Your task to perform on an android device: Show the shopping cart on target.com. Image 0: 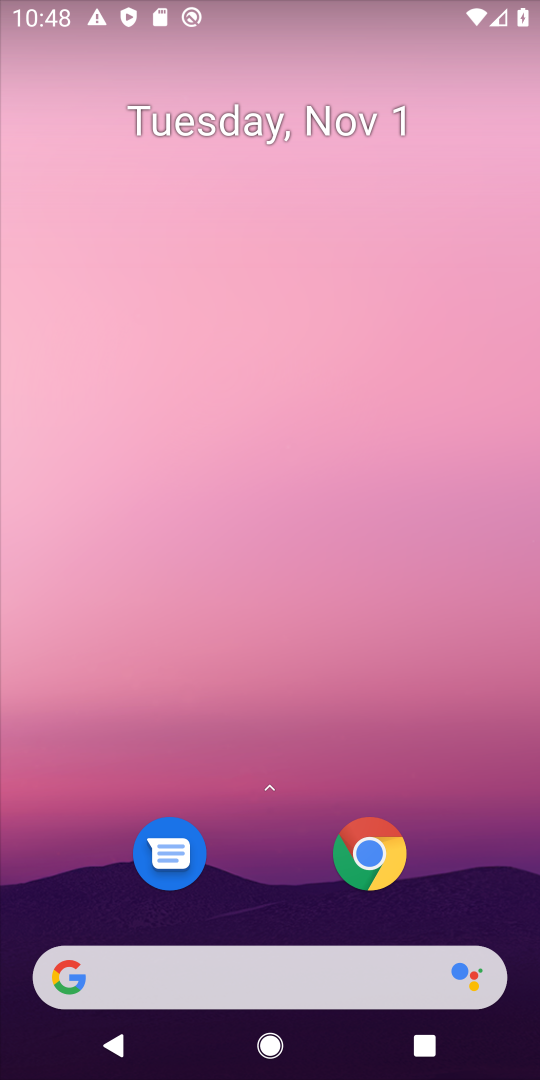
Step 0: click (295, 987)
Your task to perform on an android device: Show the shopping cart on target.com. Image 1: 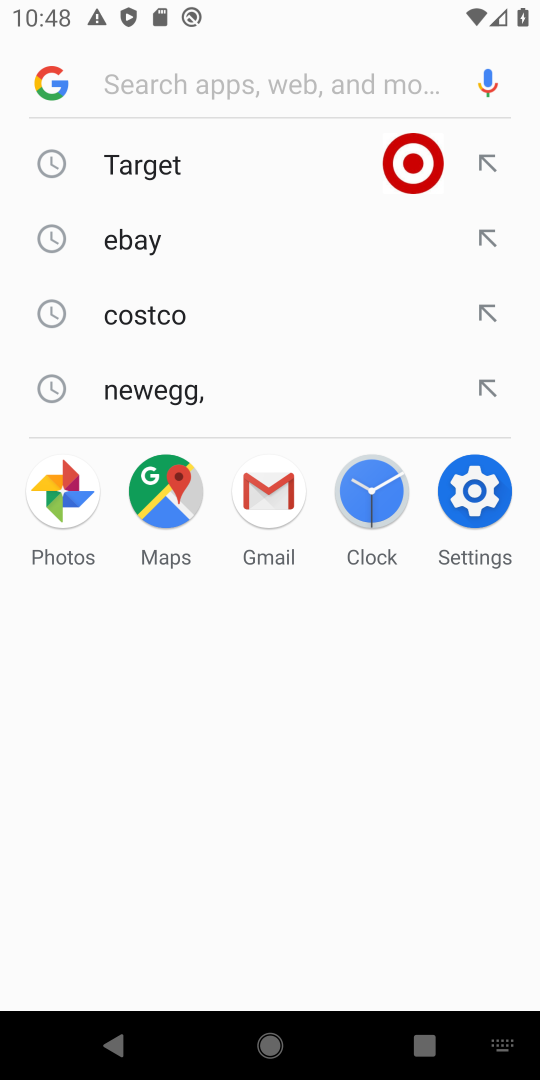
Step 1: type "target"
Your task to perform on an android device: Show the shopping cart on target.com. Image 2: 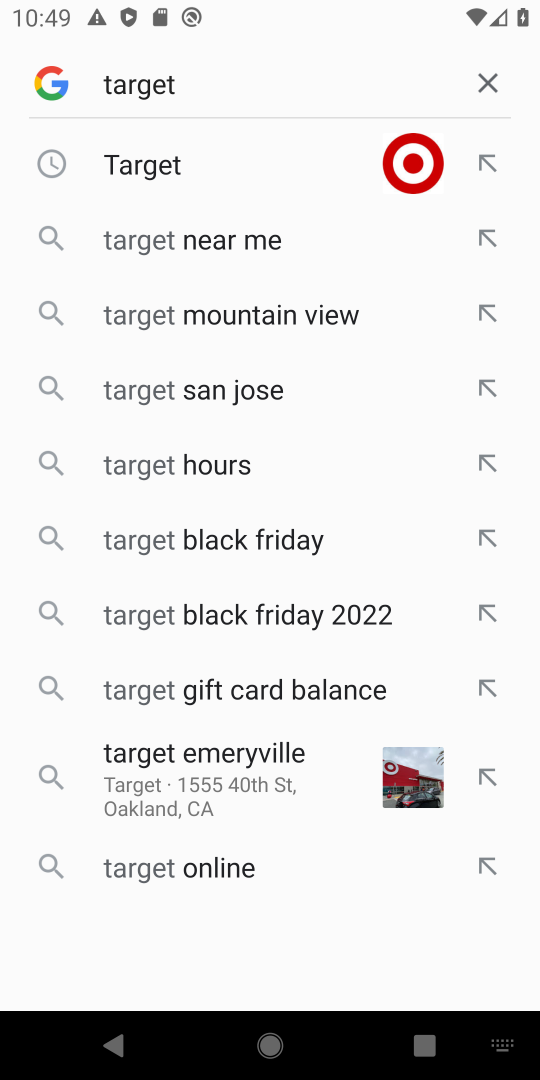
Step 2: click (211, 179)
Your task to perform on an android device: Show the shopping cart on target.com. Image 3: 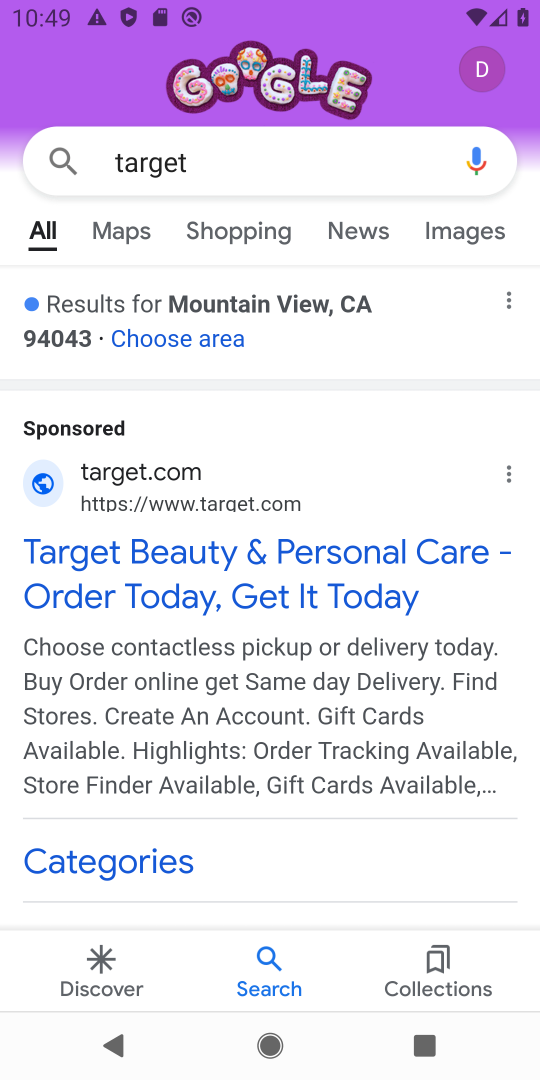
Step 3: click (185, 582)
Your task to perform on an android device: Show the shopping cart on target.com. Image 4: 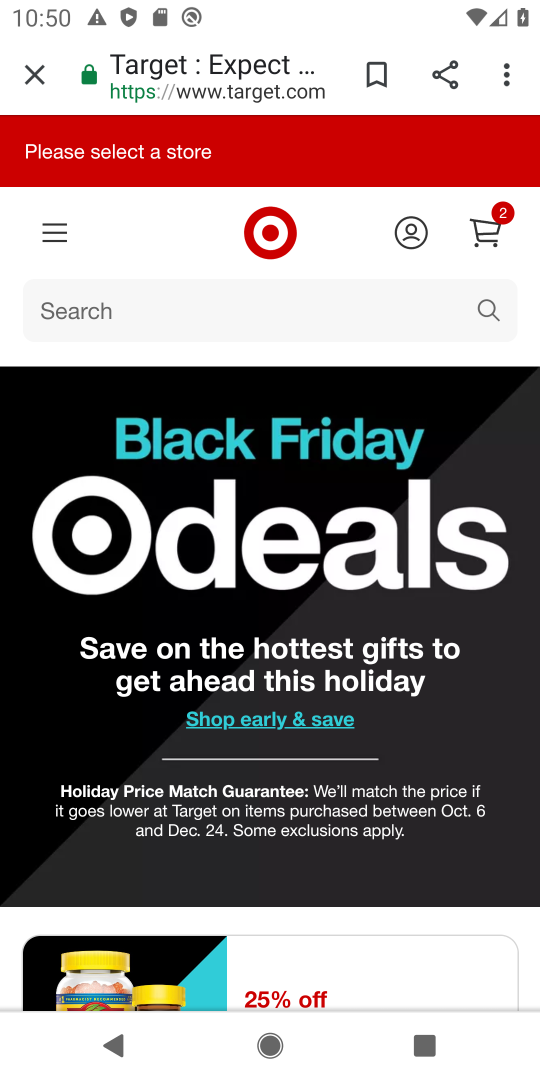
Step 4: click (265, 315)
Your task to perform on an android device: Show the shopping cart on target.com. Image 5: 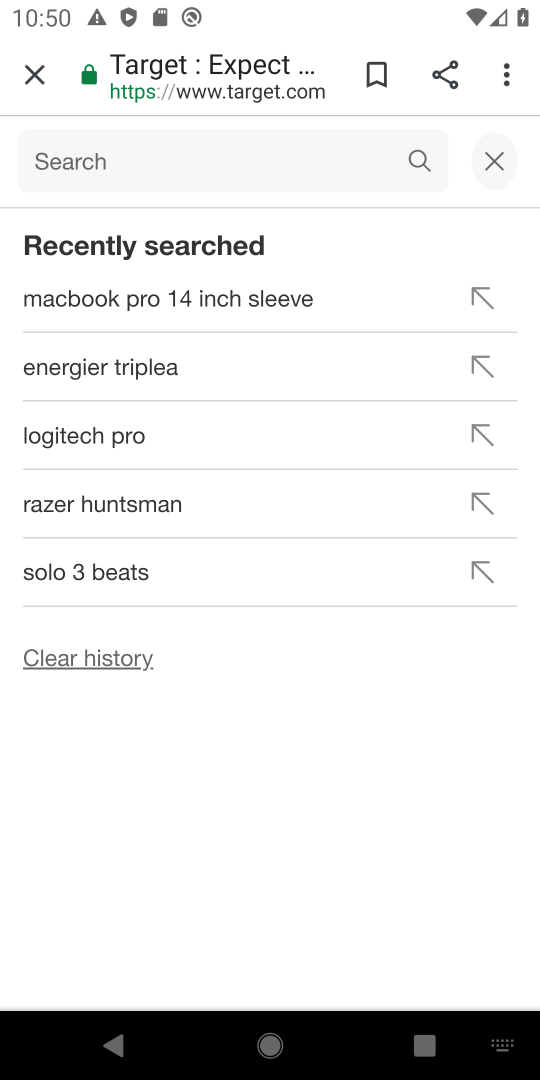
Step 5: click (38, 67)
Your task to perform on an android device: Show the shopping cart on target.com. Image 6: 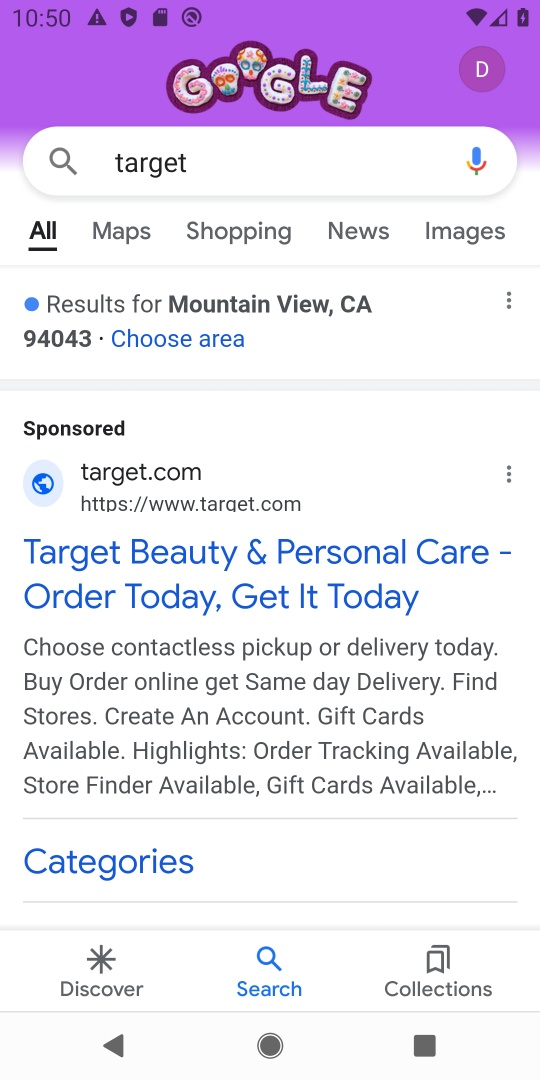
Step 6: task complete